Your task to perform on an android device: Open battery settings Image 0: 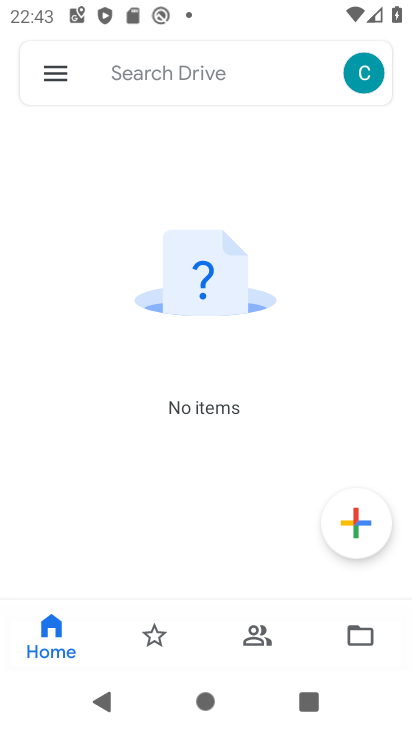
Step 0: press home button
Your task to perform on an android device: Open battery settings Image 1: 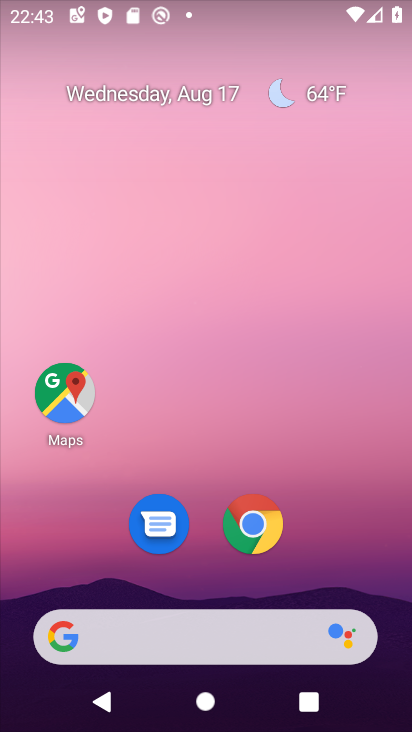
Step 1: drag from (337, 500) to (353, 12)
Your task to perform on an android device: Open battery settings Image 2: 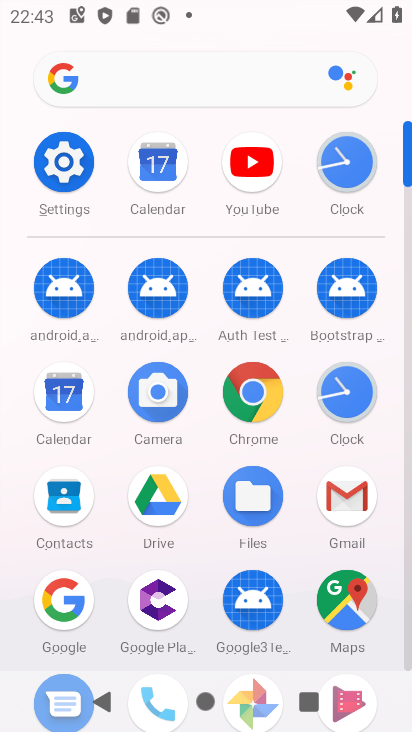
Step 2: click (76, 157)
Your task to perform on an android device: Open battery settings Image 3: 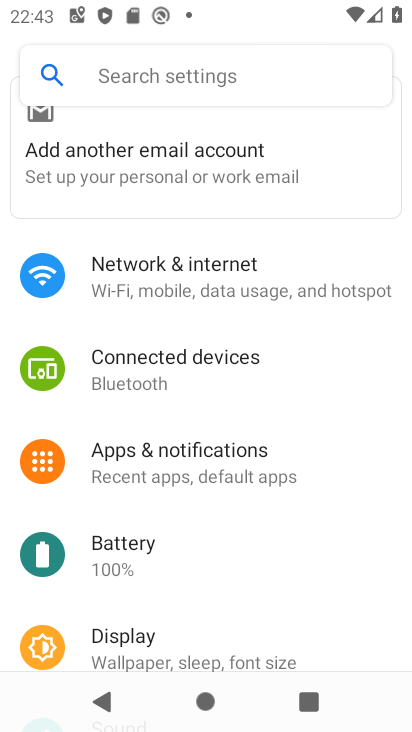
Step 3: click (207, 560)
Your task to perform on an android device: Open battery settings Image 4: 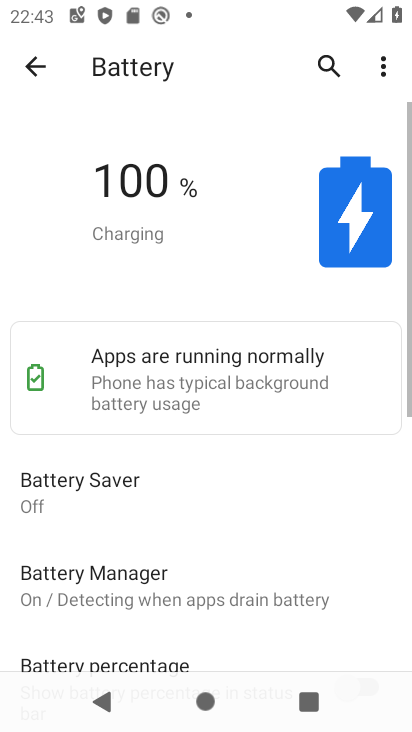
Step 4: task complete